Your task to perform on an android device: Open battery settings Image 0: 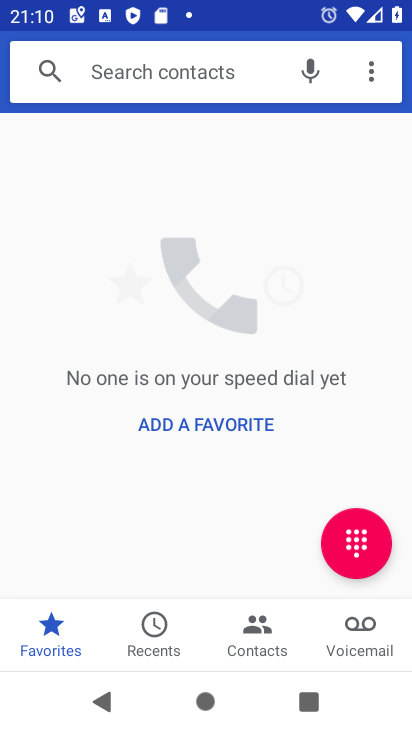
Step 0: click (135, 665)
Your task to perform on an android device: Open battery settings Image 1: 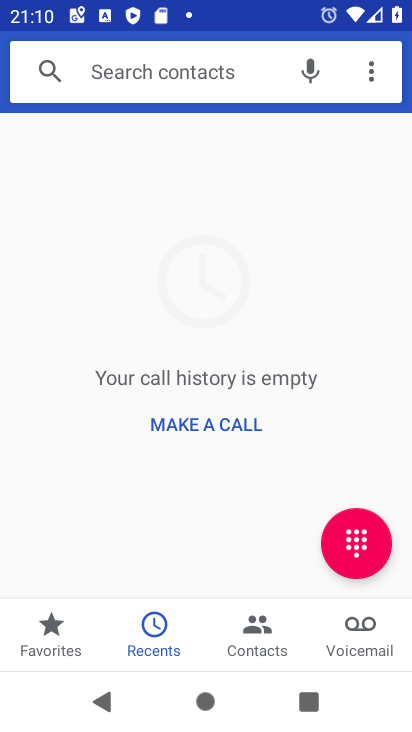
Step 1: press home button
Your task to perform on an android device: Open battery settings Image 2: 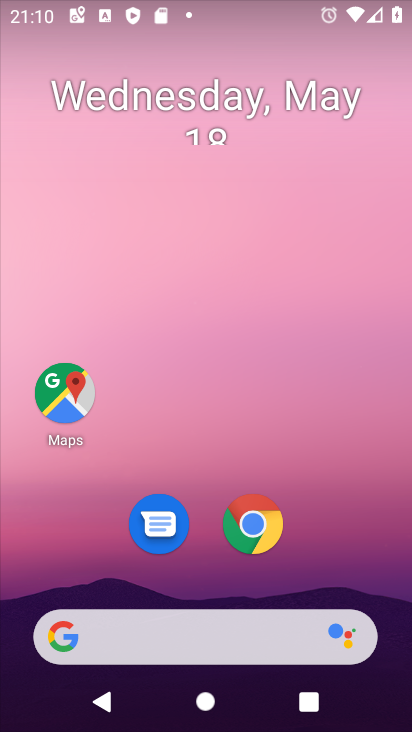
Step 2: drag from (225, 416) to (289, 52)
Your task to perform on an android device: Open battery settings Image 3: 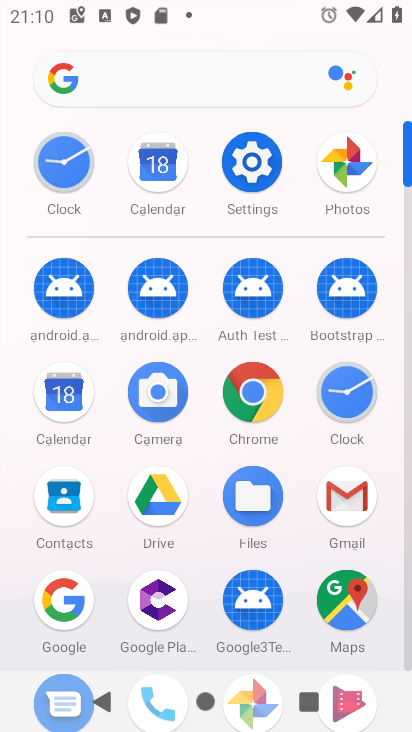
Step 3: click (262, 152)
Your task to perform on an android device: Open battery settings Image 4: 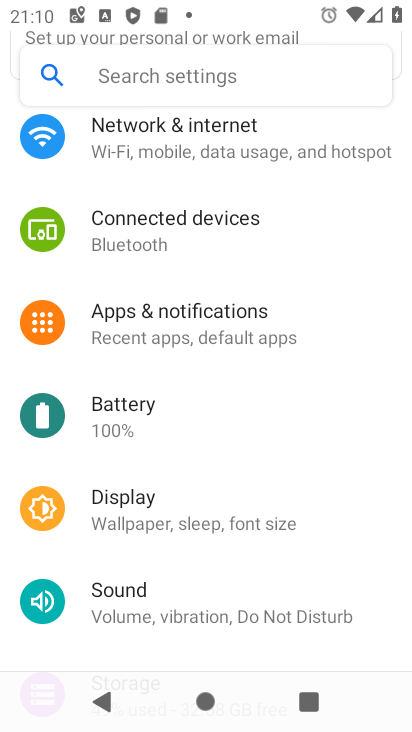
Step 4: click (161, 404)
Your task to perform on an android device: Open battery settings Image 5: 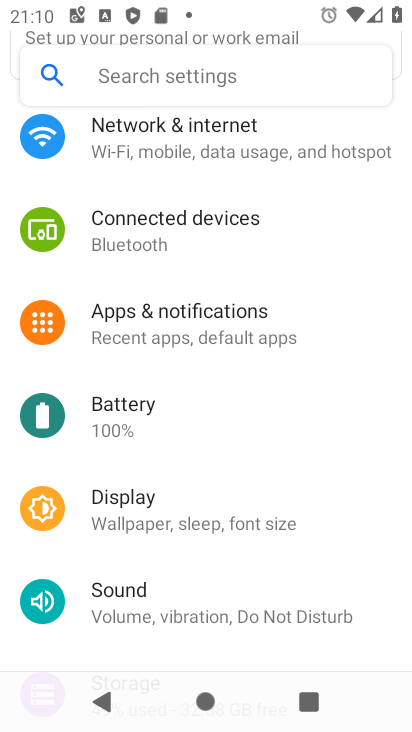
Step 5: click (161, 406)
Your task to perform on an android device: Open battery settings Image 6: 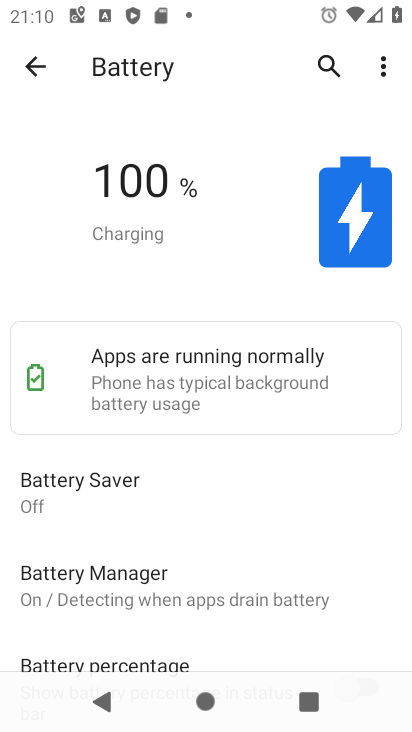
Step 6: task complete